Your task to perform on an android device: toggle data saver in the chrome app Image 0: 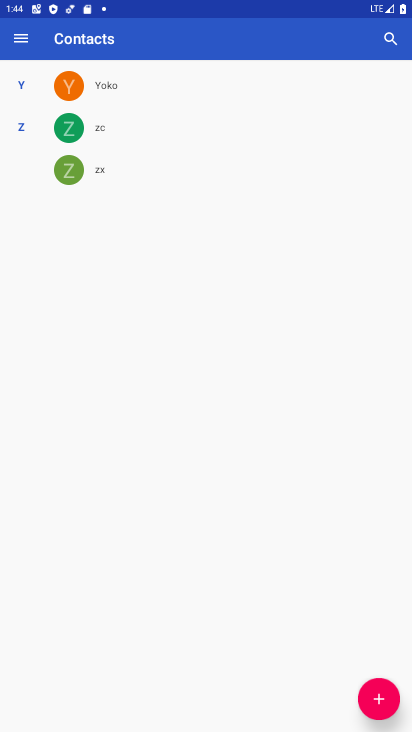
Step 0: press home button
Your task to perform on an android device: toggle data saver in the chrome app Image 1: 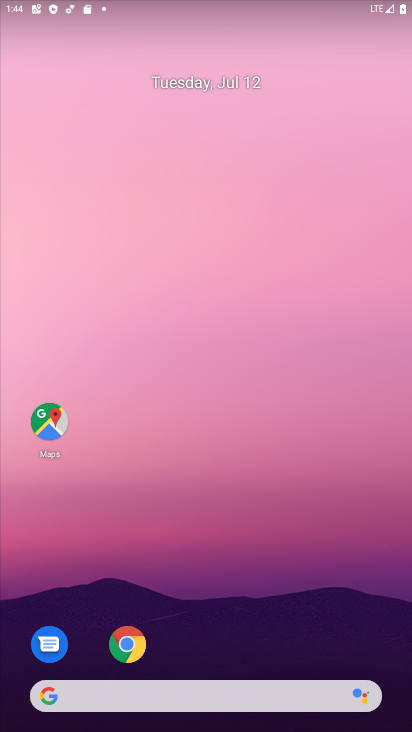
Step 1: click (136, 649)
Your task to perform on an android device: toggle data saver in the chrome app Image 2: 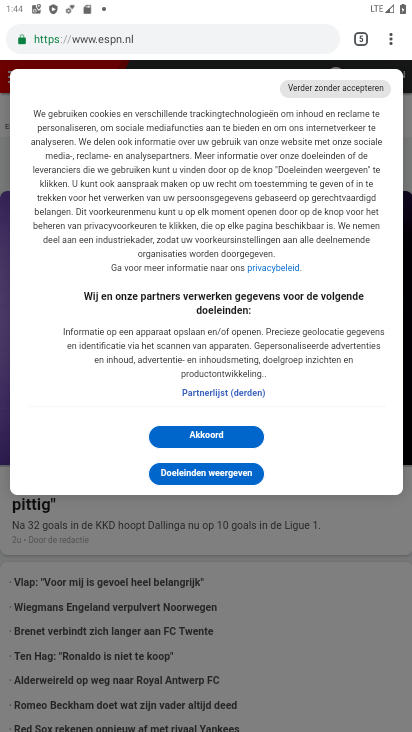
Step 2: click (199, 426)
Your task to perform on an android device: toggle data saver in the chrome app Image 3: 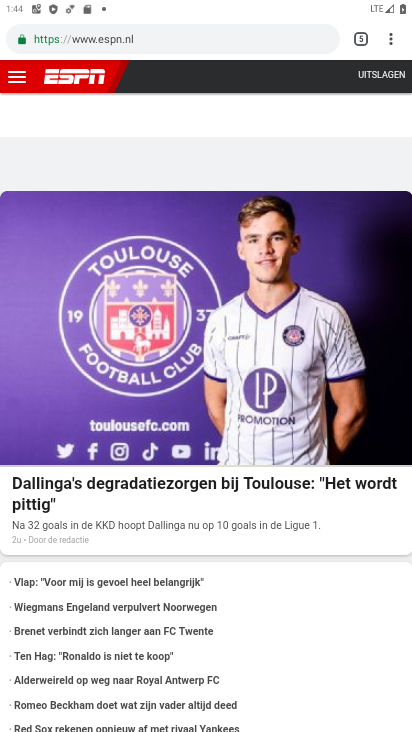
Step 3: drag from (391, 38) to (249, 470)
Your task to perform on an android device: toggle data saver in the chrome app Image 4: 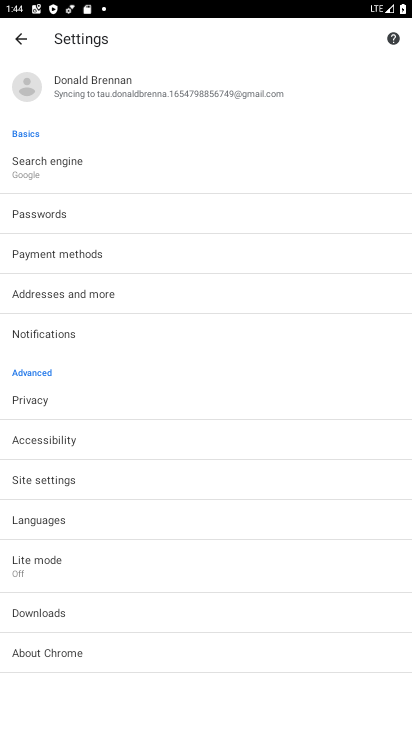
Step 4: click (40, 568)
Your task to perform on an android device: toggle data saver in the chrome app Image 5: 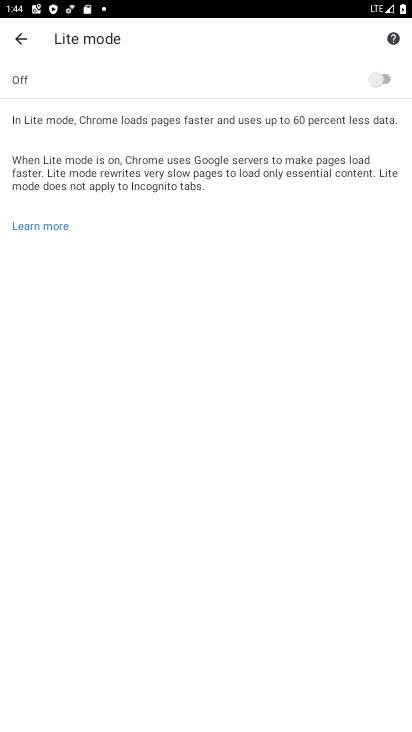
Step 5: click (378, 89)
Your task to perform on an android device: toggle data saver in the chrome app Image 6: 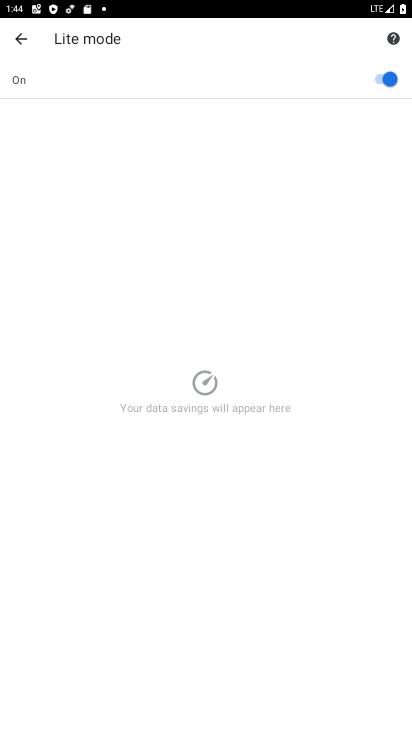
Step 6: task complete